Your task to perform on an android device: Do I have any events this weekend? Image 0: 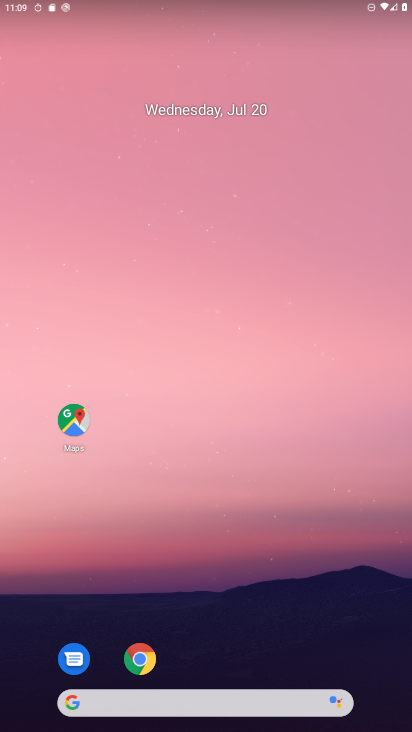
Step 0: drag from (313, 639) to (269, 126)
Your task to perform on an android device: Do I have any events this weekend? Image 1: 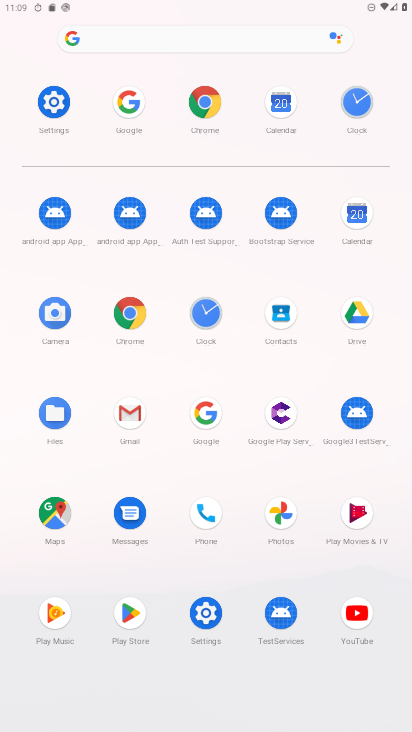
Step 1: click (284, 105)
Your task to perform on an android device: Do I have any events this weekend? Image 2: 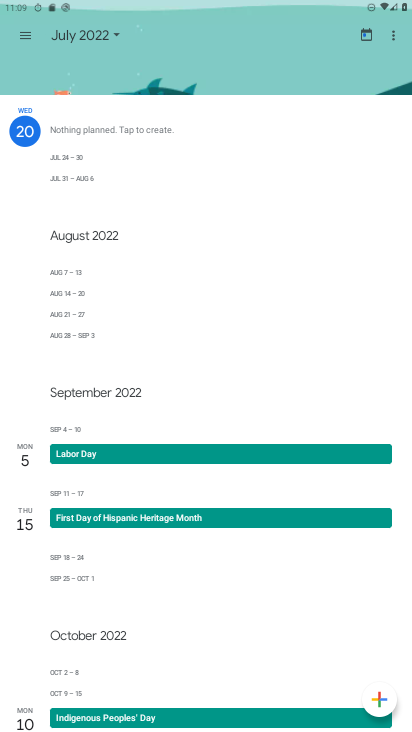
Step 2: click (31, 34)
Your task to perform on an android device: Do I have any events this weekend? Image 3: 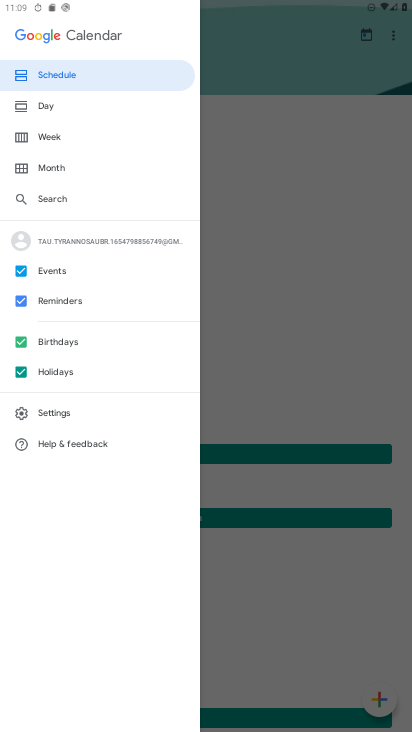
Step 3: click (52, 140)
Your task to perform on an android device: Do I have any events this weekend? Image 4: 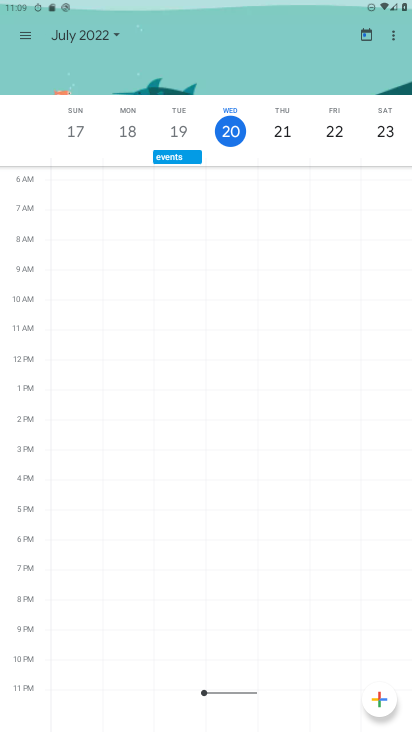
Step 4: task complete